Your task to perform on an android device: Open battery settings Image 0: 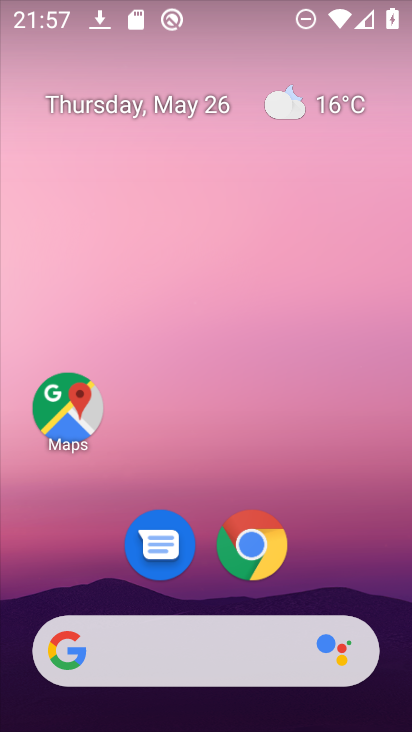
Step 0: drag from (338, 573) to (334, 157)
Your task to perform on an android device: Open battery settings Image 1: 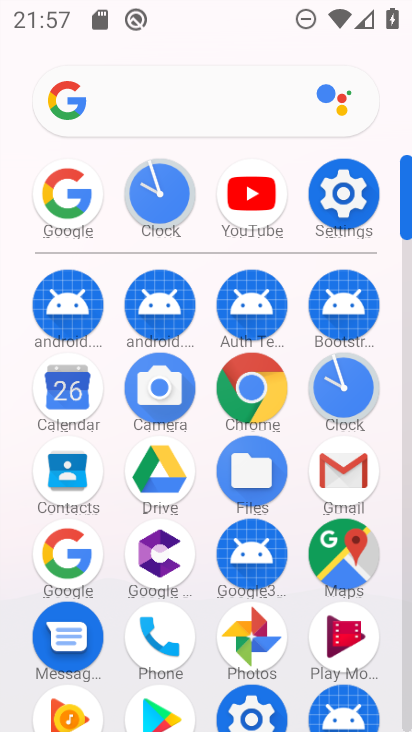
Step 1: click (344, 203)
Your task to perform on an android device: Open battery settings Image 2: 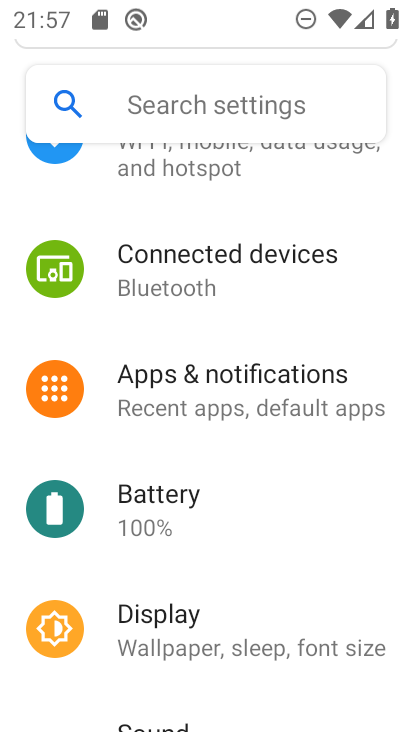
Step 2: click (208, 521)
Your task to perform on an android device: Open battery settings Image 3: 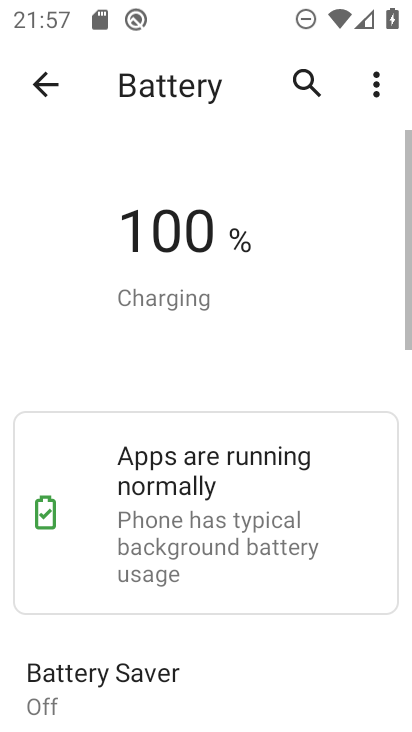
Step 3: task complete